Your task to perform on an android device: toggle show notifications on the lock screen Image 0: 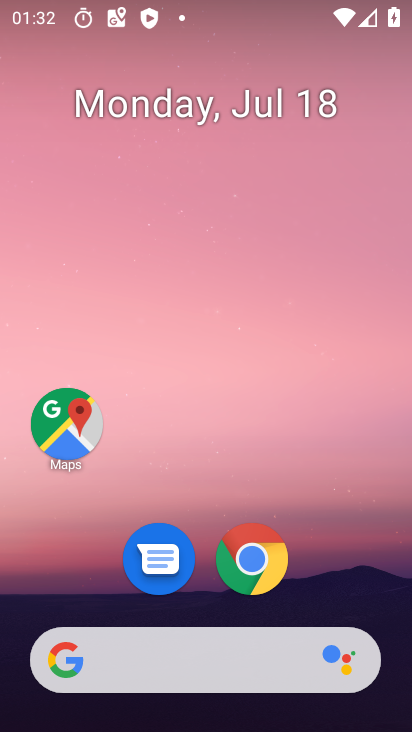
Step 0: drag from (83, 564) to (207, 22)
Your task to perform on an android device: toggle show notifications on the lock screen Image 1: 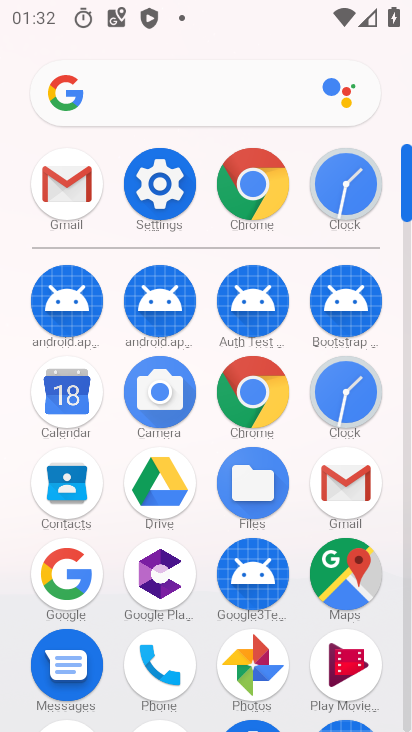
Step 1: click (161, 176)
Your task to perform on an android device: toggle show notifications on the lock screen Image 2: 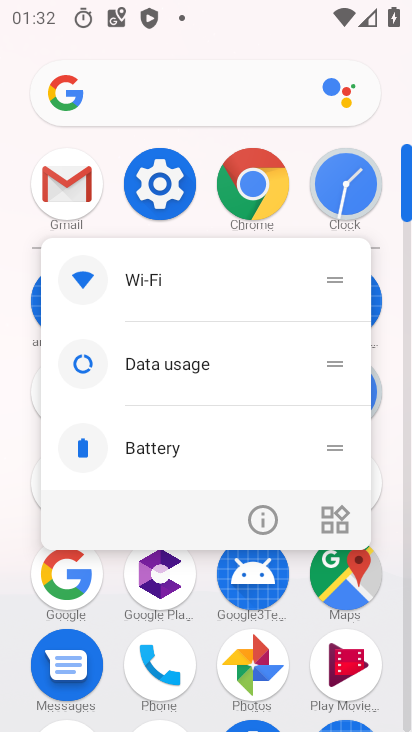
Step 2: click (159, 174)
Your task to perform on an android device: toggle show notifications on the lock screen Image 3: 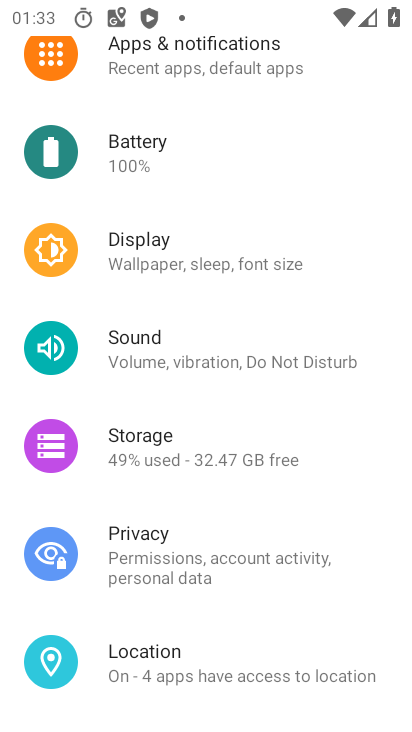
Step 3: click (189, 68)
Your task to perform on an android device: toggle show notifications on the lock screen Image 4: 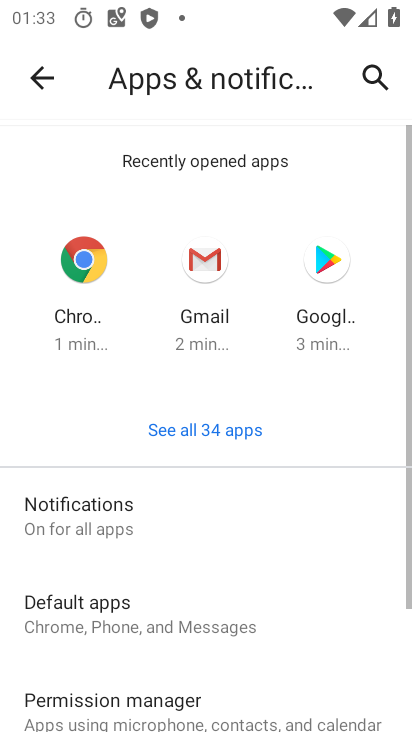
Step 4: click (126, 520)
Your task to perform on an android device: toggle show notifications on the lock screen Image 5: 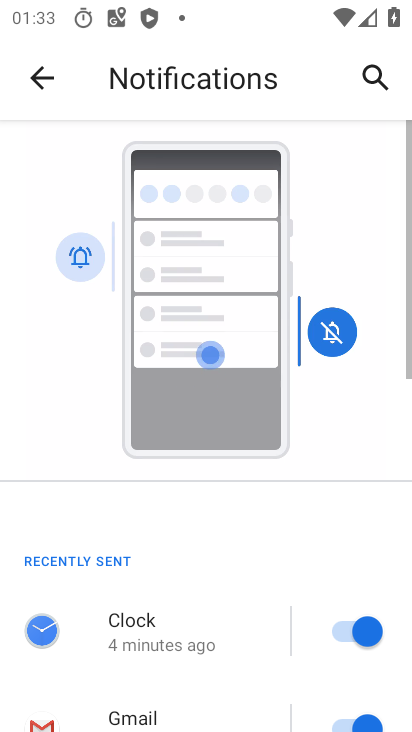
Step 5: drag from (163, 621) to (316, 0)
Your task to perform on an android device: toggle show notifications on the lock screen Image 6: 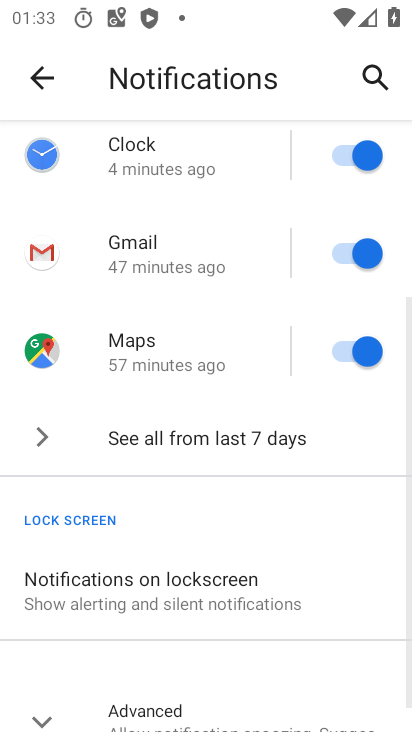
Step 6: click (233, 577)
Your task to perform on an android device: toggle show notifications on the lock screen Image 7: 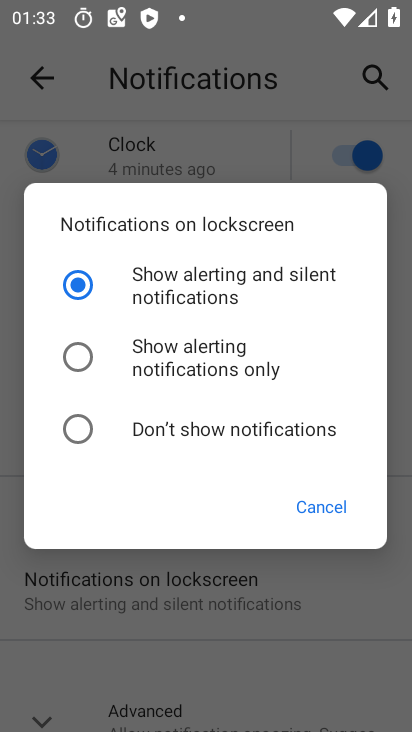
Step 7: click (73, 265)
Your task to perform on an android device: toggle show notifications on the lock screen Image 8: 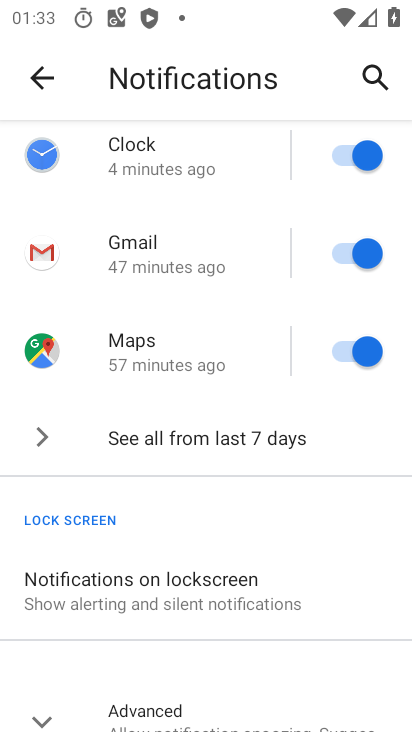
Step 8: task complete